Your task to perform on an android device: set an alarm Image 0: 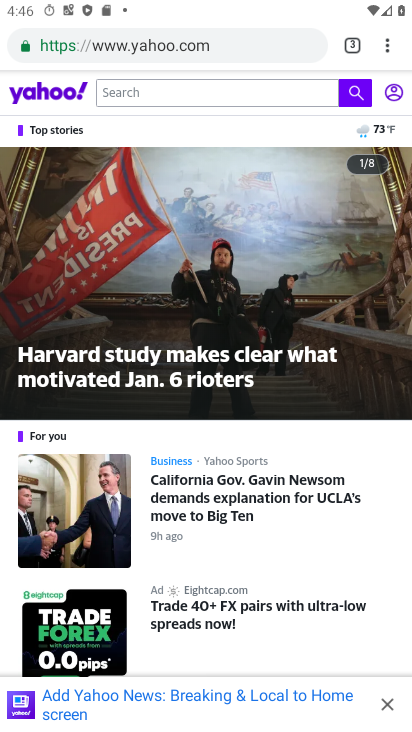
Step 0: press home button
Your task to perform on an android device: set an alarm Image 1: 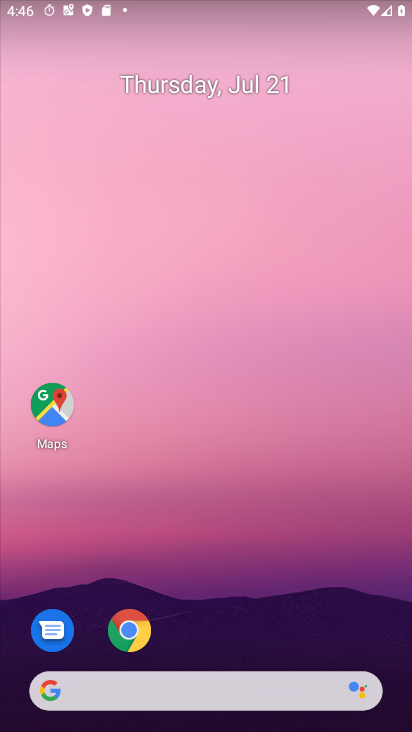
Step 1: drag from (178, 692) to (292, 157)
Your task to perform on an android device: set an alarm Image 2: 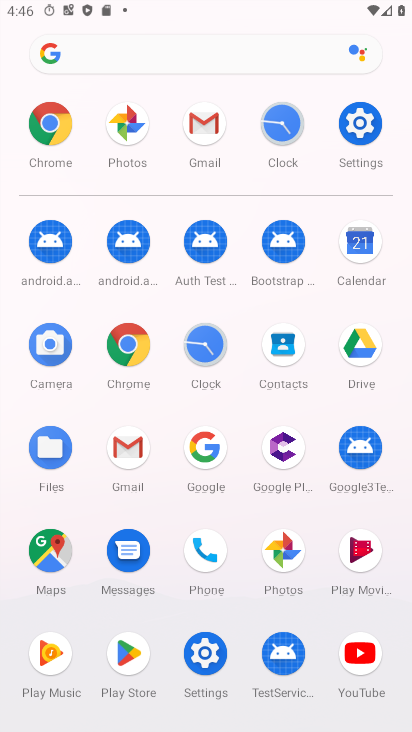
Step 2: click (207, 345)
Your task to perform on an android device: set an alarm Image 3: 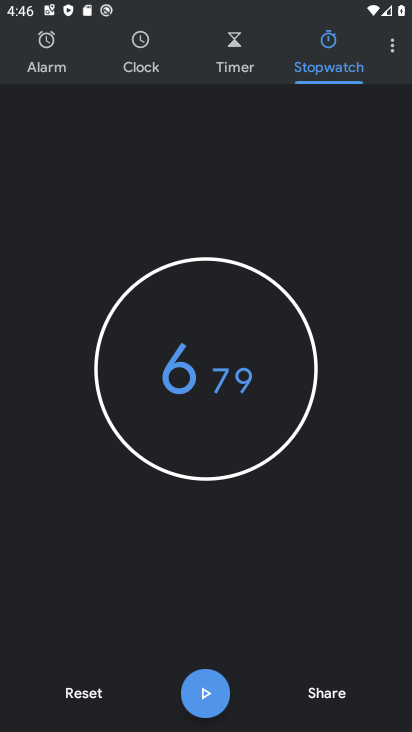
Step 3: click (49, 42)
Your task to perform on an android device: set an alarm Image 4: 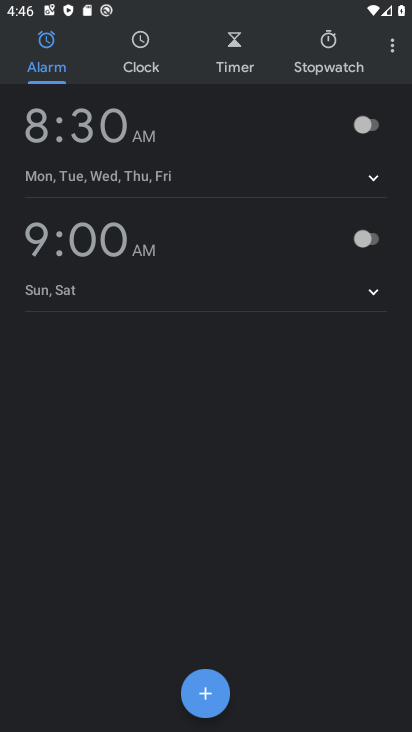
Step 4: click (204, 690)
Your task to perform on an android device: set an alarm Image 5: 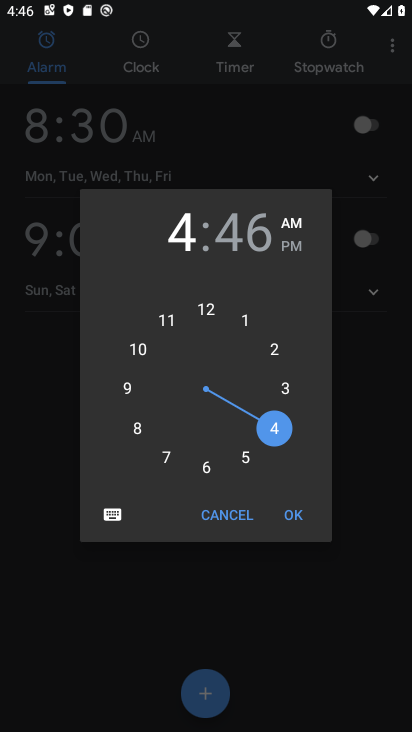
Step 5: click (208, 306)
Your task to perform on an android device: set an alarm Image 6: 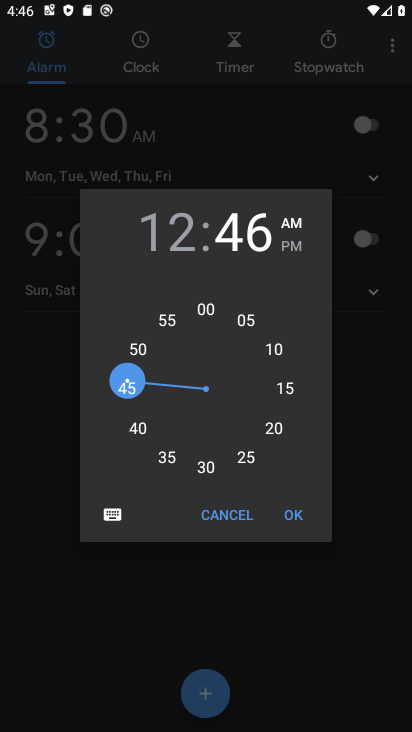
Step 6: click (169, 325)
Your task to perform on an android device: set an alarm Image 7: 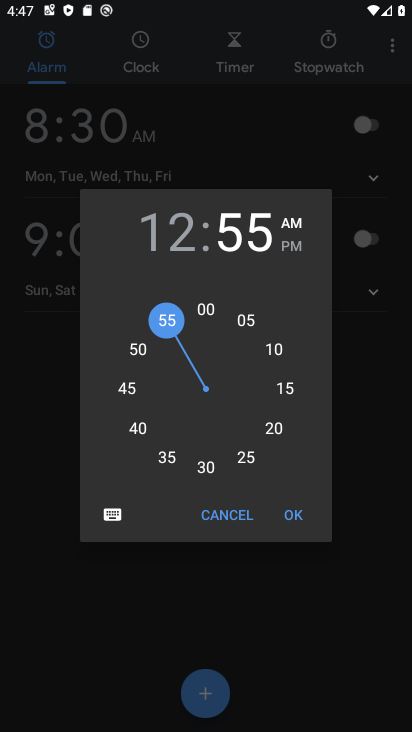
Step 7: click (299, 247)
Your task to perform on an android device: set an alarm Image 8: 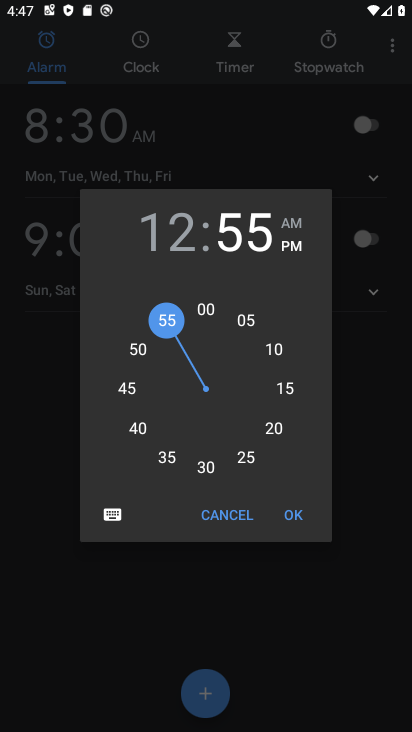
Step 8: click (291, 517)
Your task to perform on an android device: set an alarm Image 9: 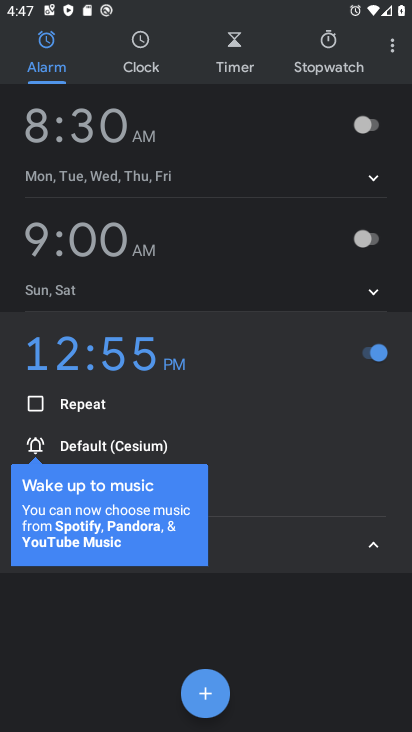
Step 9: task complete